Your task to perform on an android device: Open internet settings Image 0: 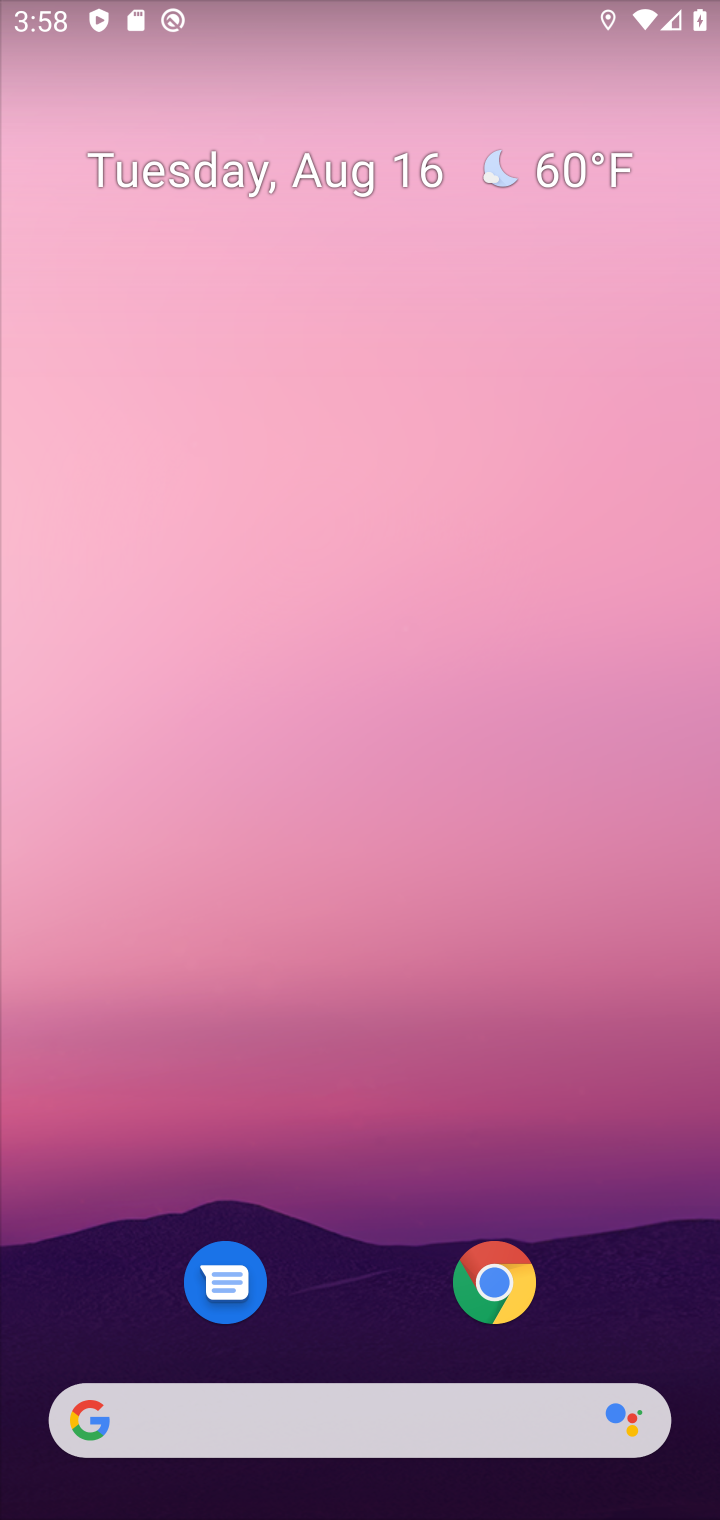
Step 0: drag from (391, 1090) to (437, 45)
Your task to perform on an android device: Open internet settings Image 1: 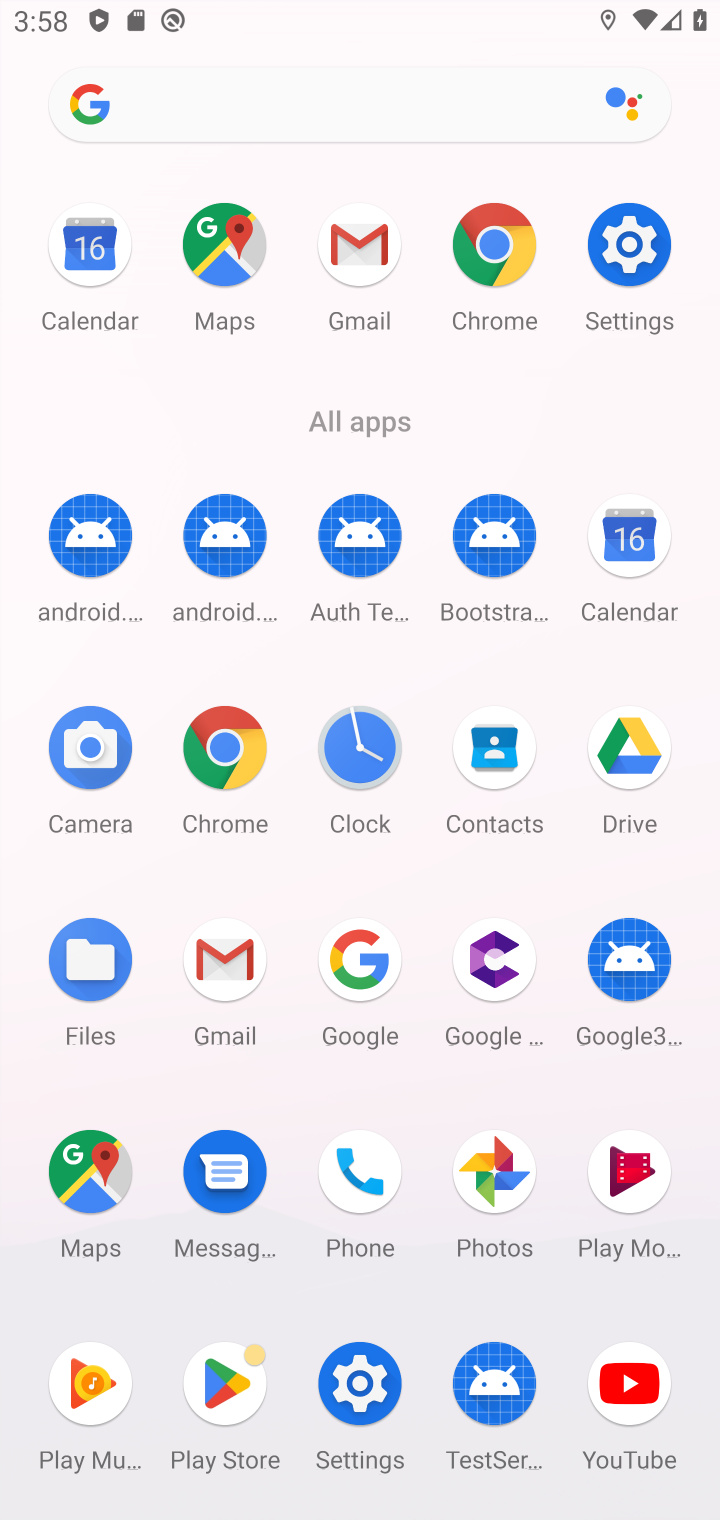
Step 1: click (646, 295)
Your task to perform on an android device: Open internet settings Image 2: 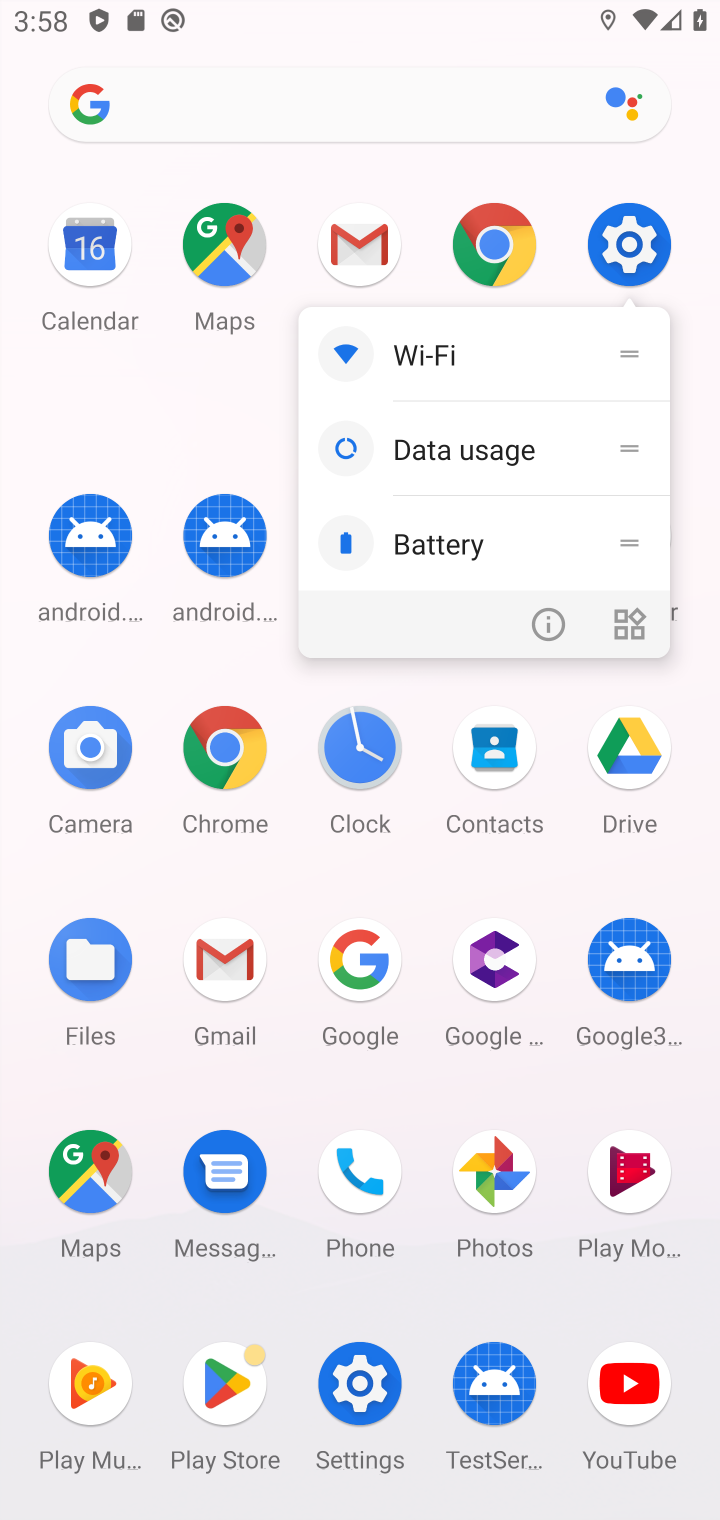
Step 2: click (649, 229)
Your task to perform on an android device: Open internet settings Image 3: 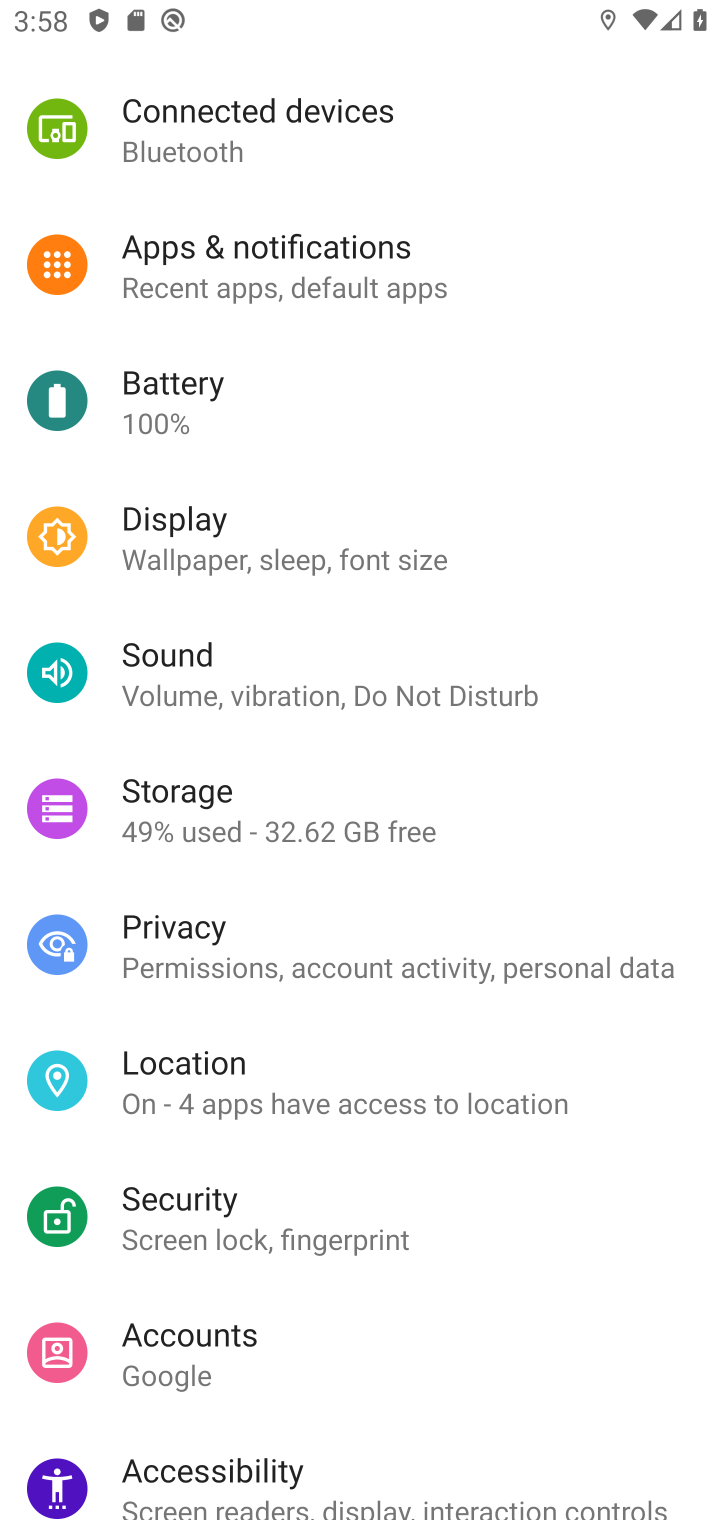
Step 3: drag from (431, 280) to (370, 1456)
Your task to perform on an android device: Open internet settings Image 4: 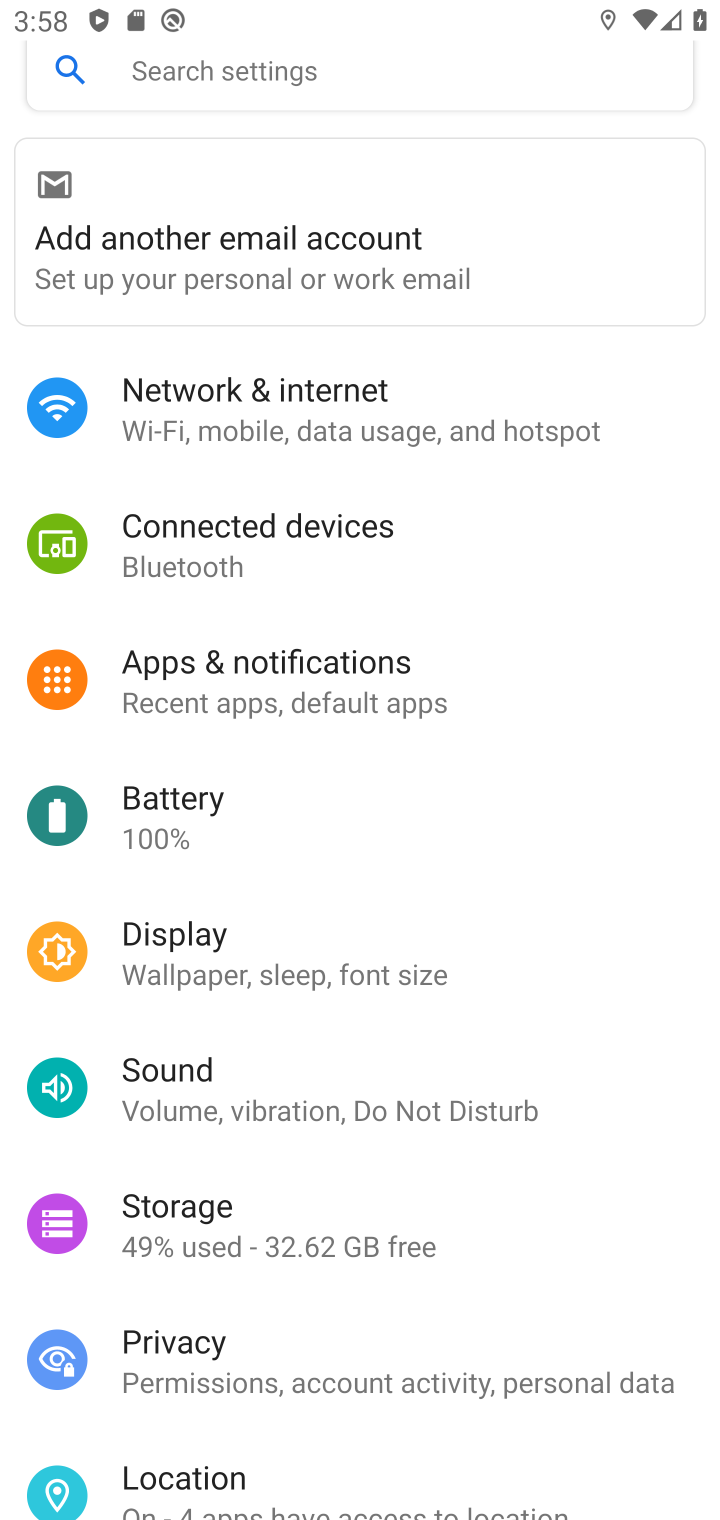
Step 4: click (314, 382)
Your task to perform on an android device: Open internet settings Image 5: 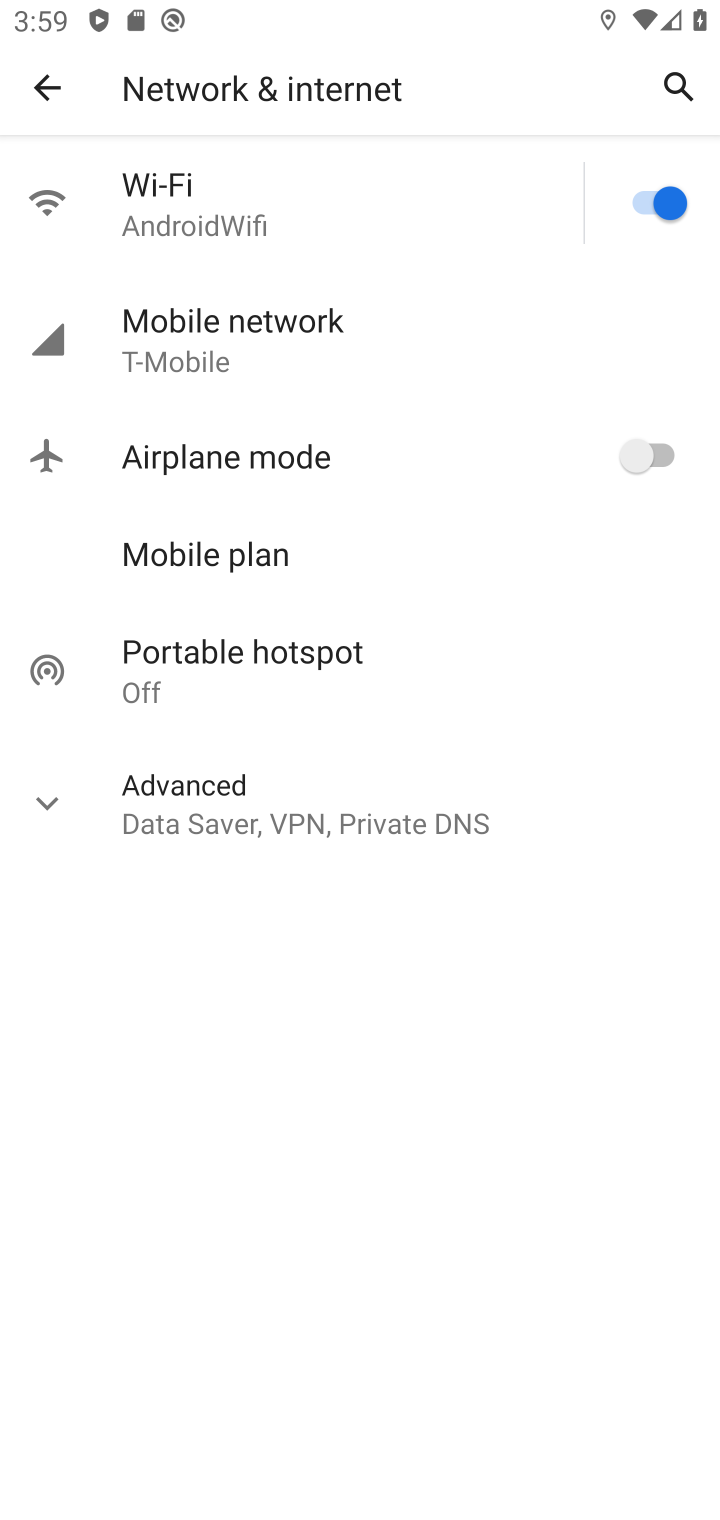
Step 5: task complete